Your task to perform on an android device: set an alarm Image 0: 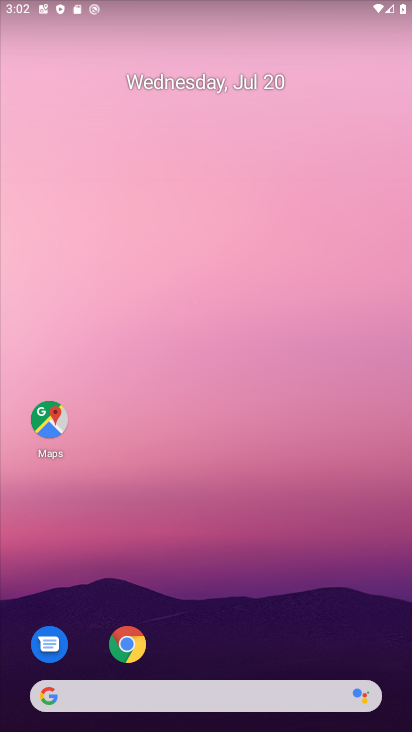
Step 0: drag from (251, 661) to (246, 123)
Your task to perform on an android device: set an alarm Image 1: 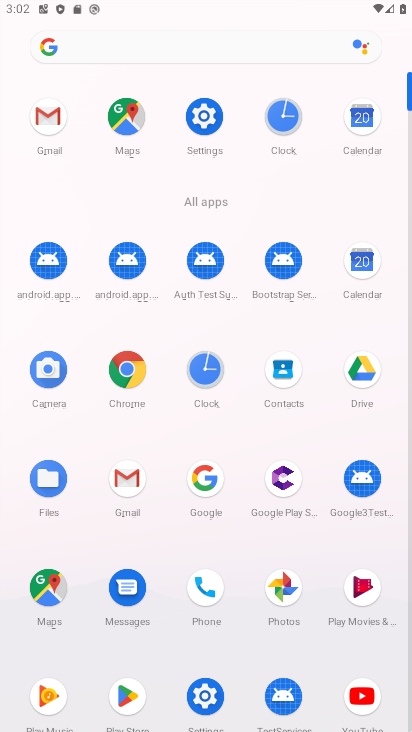
Step 1: click (283, 145)
Your task to perform on an android device: set an alarm Image 2: 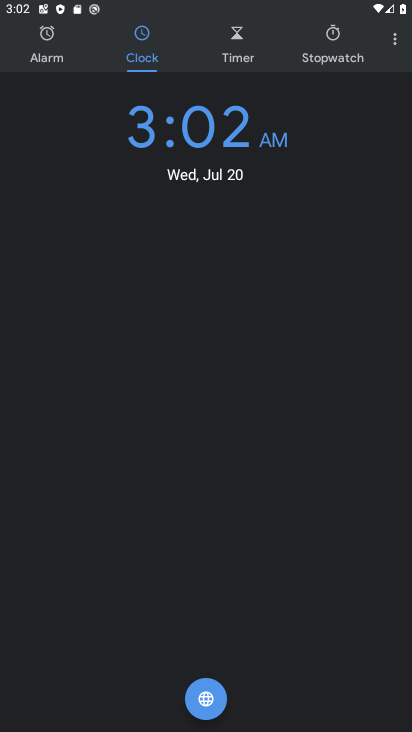
Step 2: click (57, 55)
Your task to perform on an android device: set an alarm Image 3: 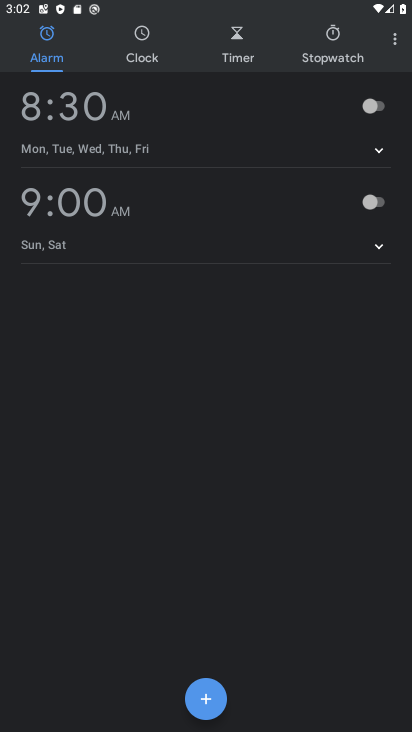
Step 3: click (403, 127)
Your task to perform on an android device: set an alarm Image 4: 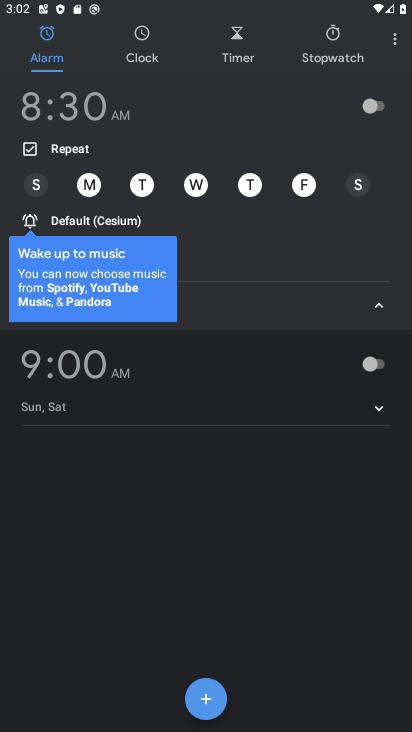
Step 4: click (352, 118)
Your task to perform on an android device: set an alarm Image 5: 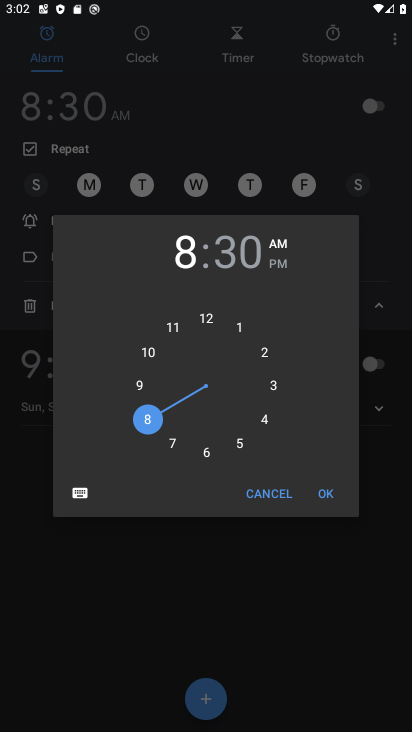
Step 5: task complete